Your task to perform on an android device: View the shopping cart on costco. Add "macbook" to the cart on costco Image 0: 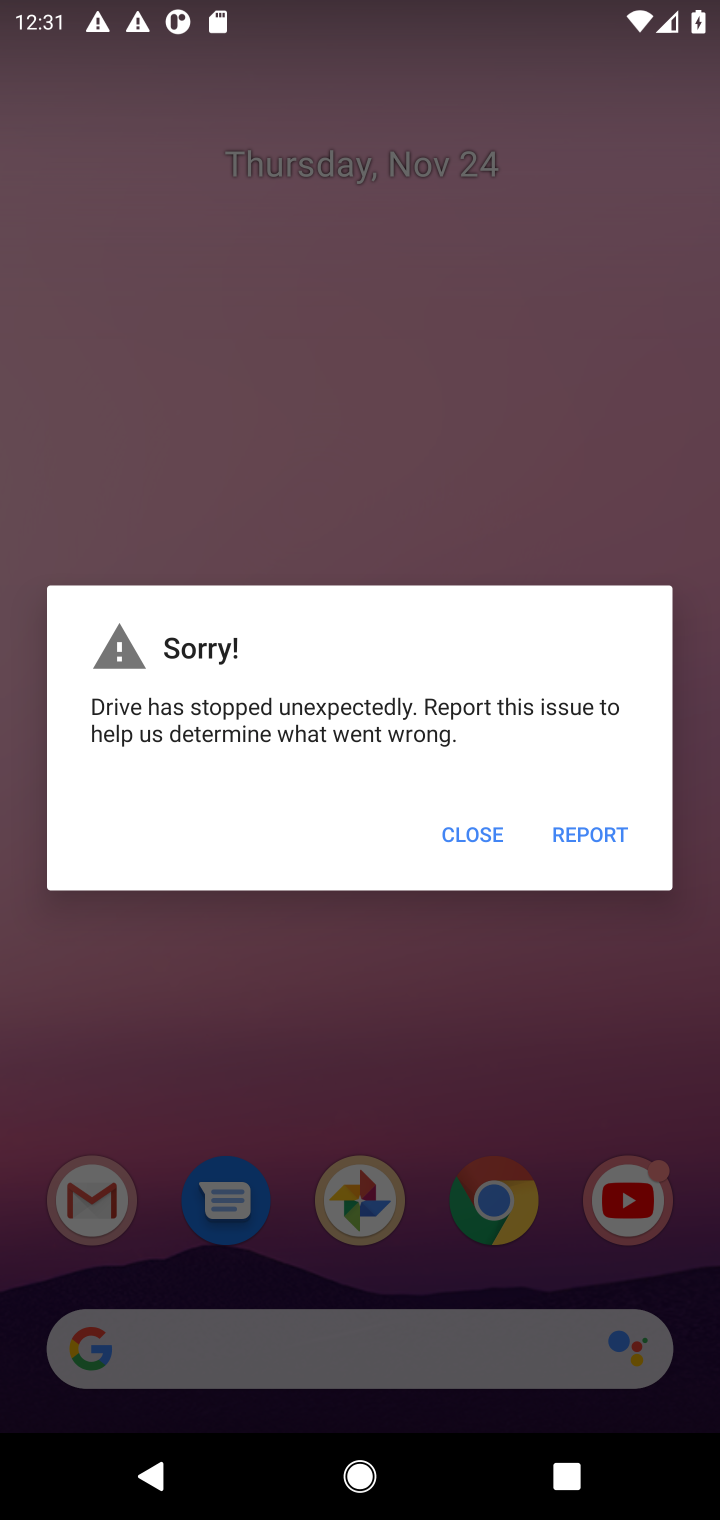
Step 0: press home button
Your task to perform on an android device: View the shopping cart on costco. Add "macbook" to the cart on costco Image 1: 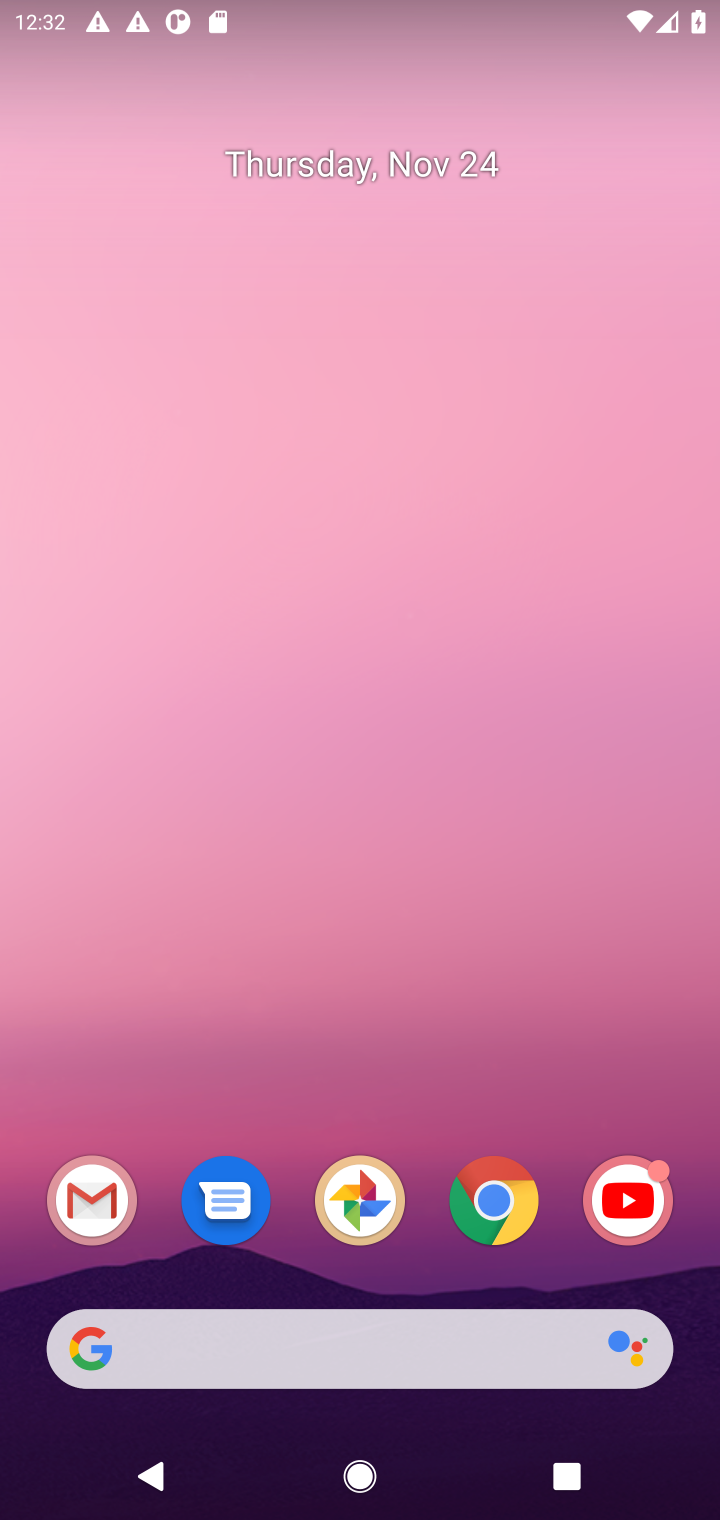
Step 1: click (420, 1337)
Your task to perform on an android device: View the shopping cart on costco. Add "macbook" to the cart on costco Image 2: 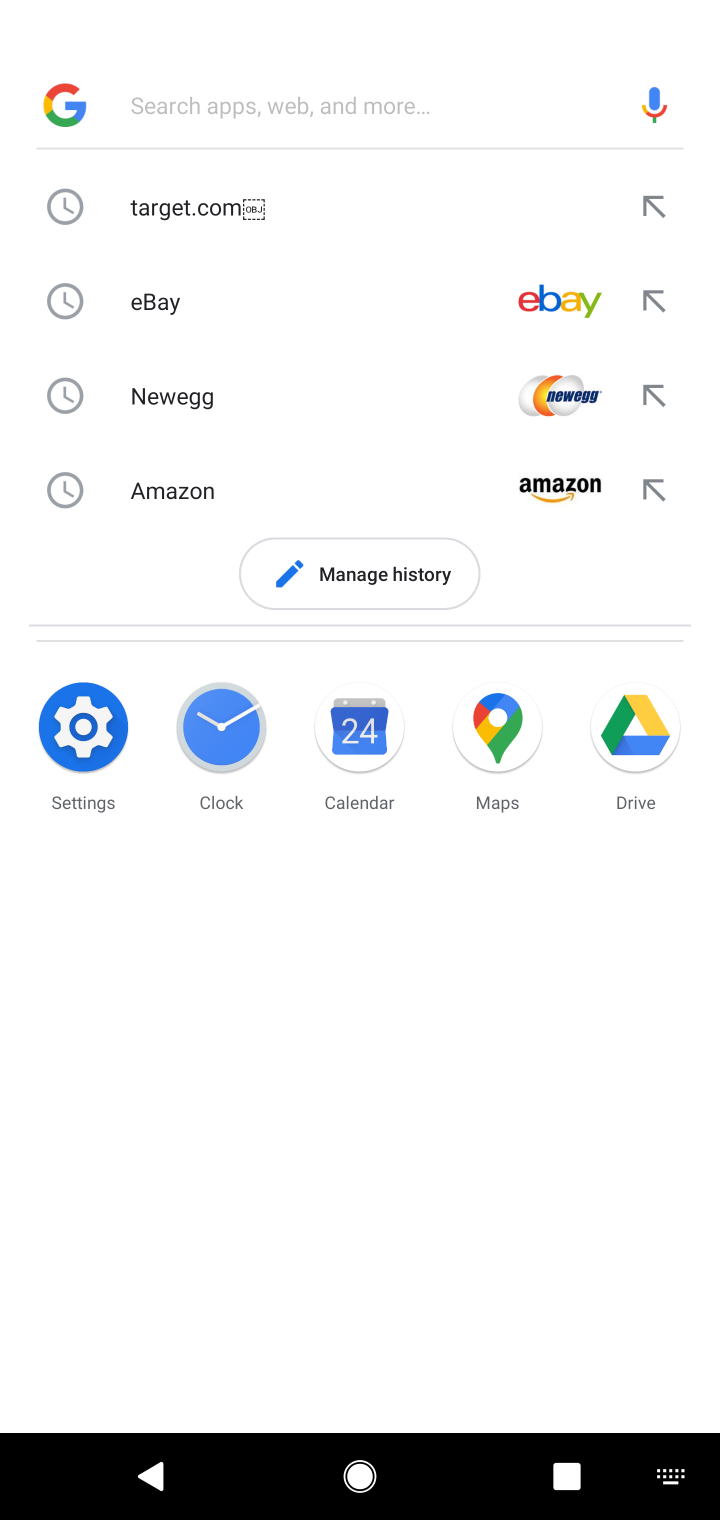
Step 2: type "costco"
Your task to perform on an android device: View the shopping cart on costco. Add "macbook" to the cart on costco Image 3: 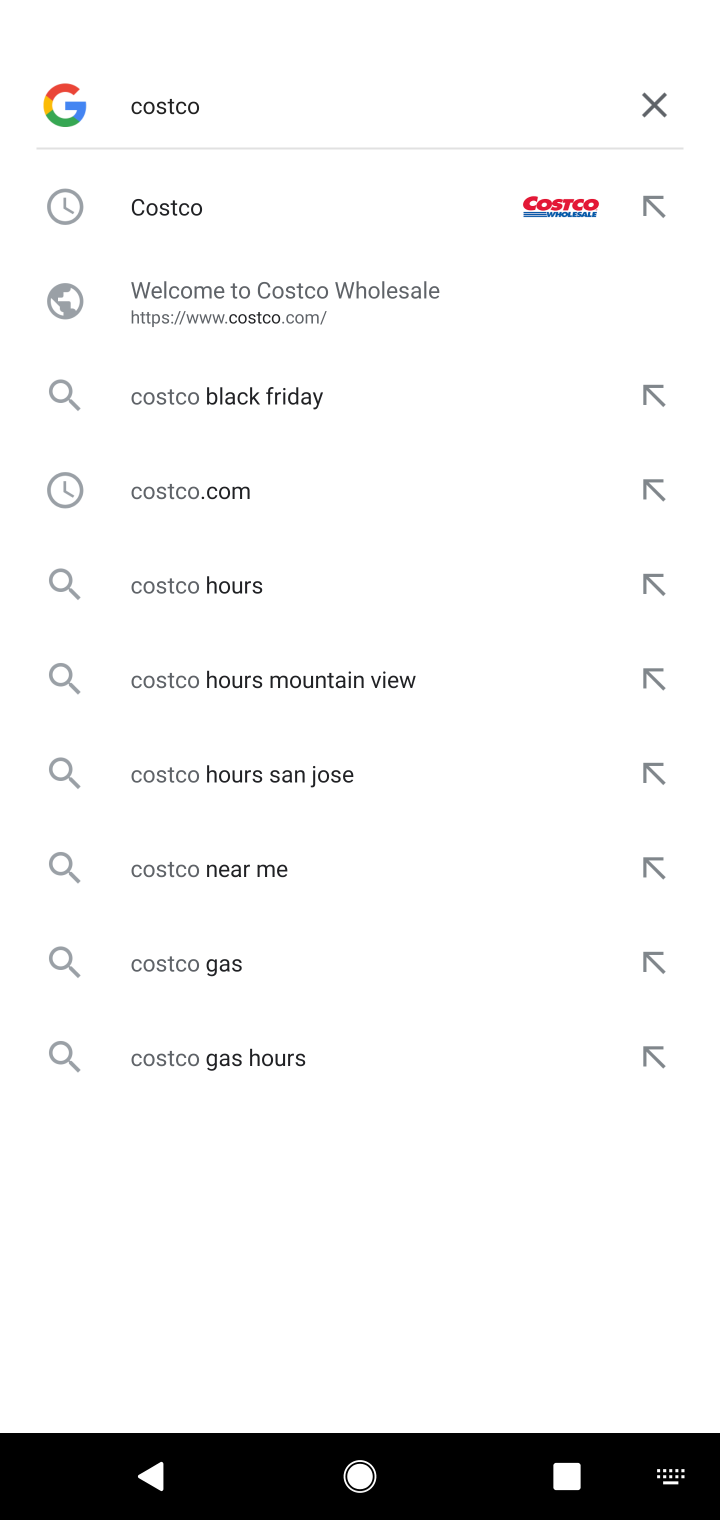
Step 3: click (226, 181)
Your task to perform on an android device: View the shopping cart on costco. Add "macbook" to the cart on costco Image 4: 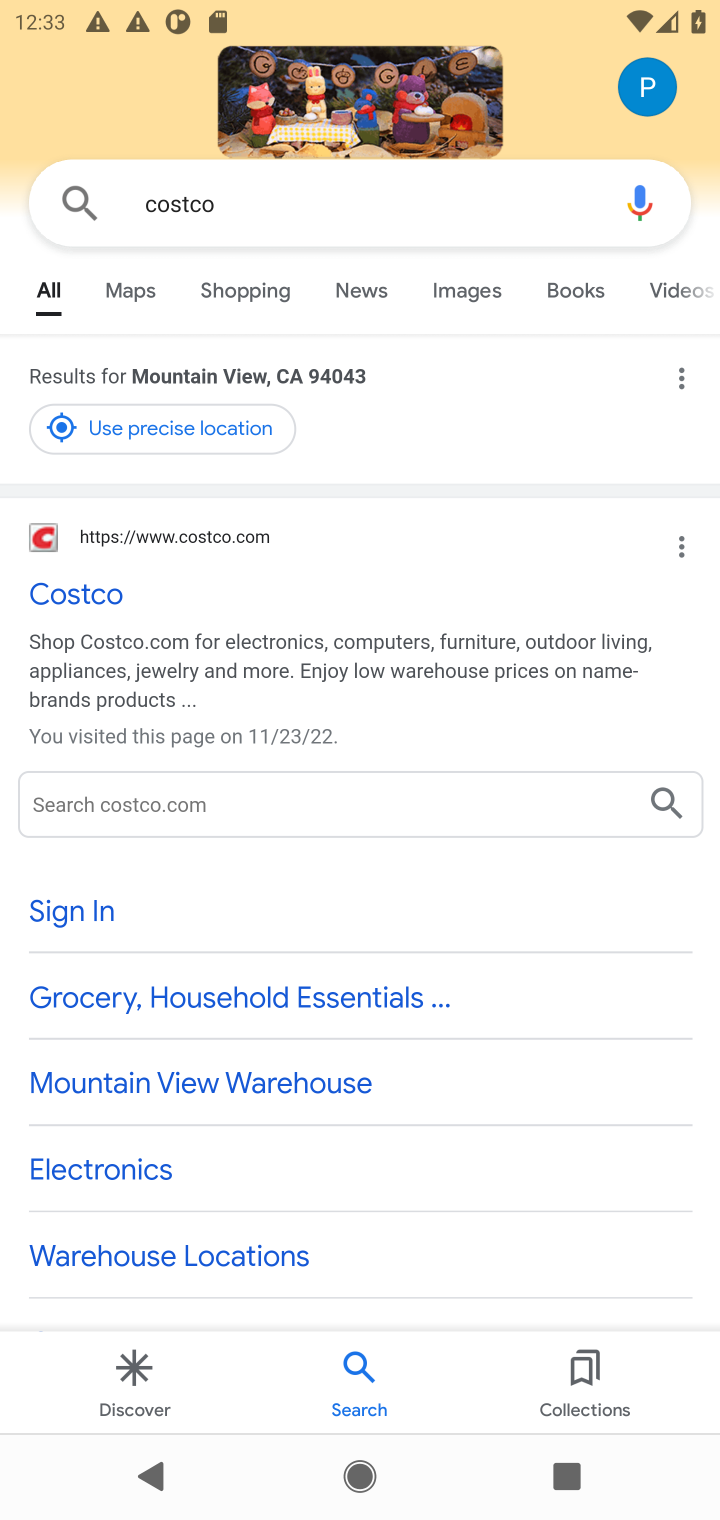
Step 4: click (77, 605)
Your task to perform on an android device: View the shopping cart on costco. Add "macbook" to the cart on costco Image 5: 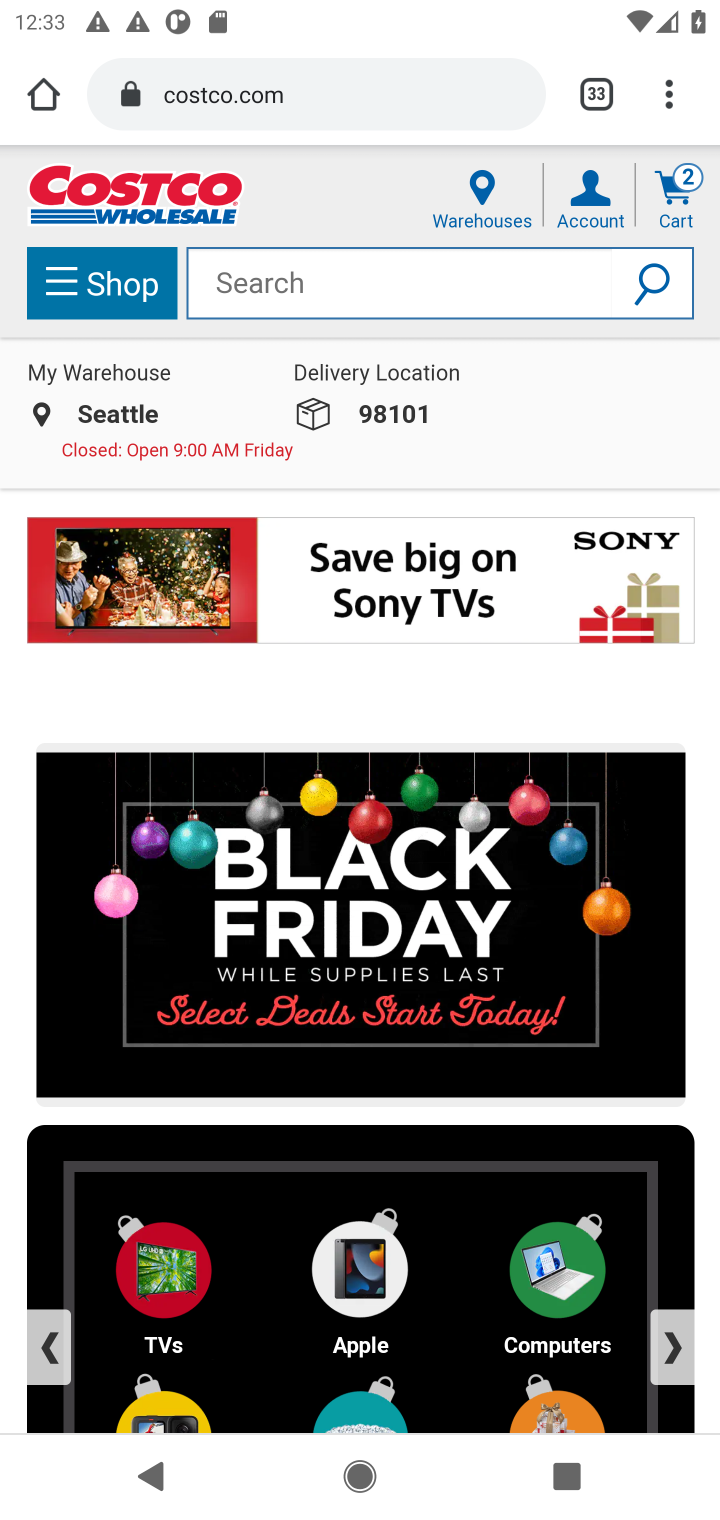
Step 5: click (222, 272)
Your task to perform on an android device: View the shopping cart on costco. Add "macbook" to the cart on costco Image 6: 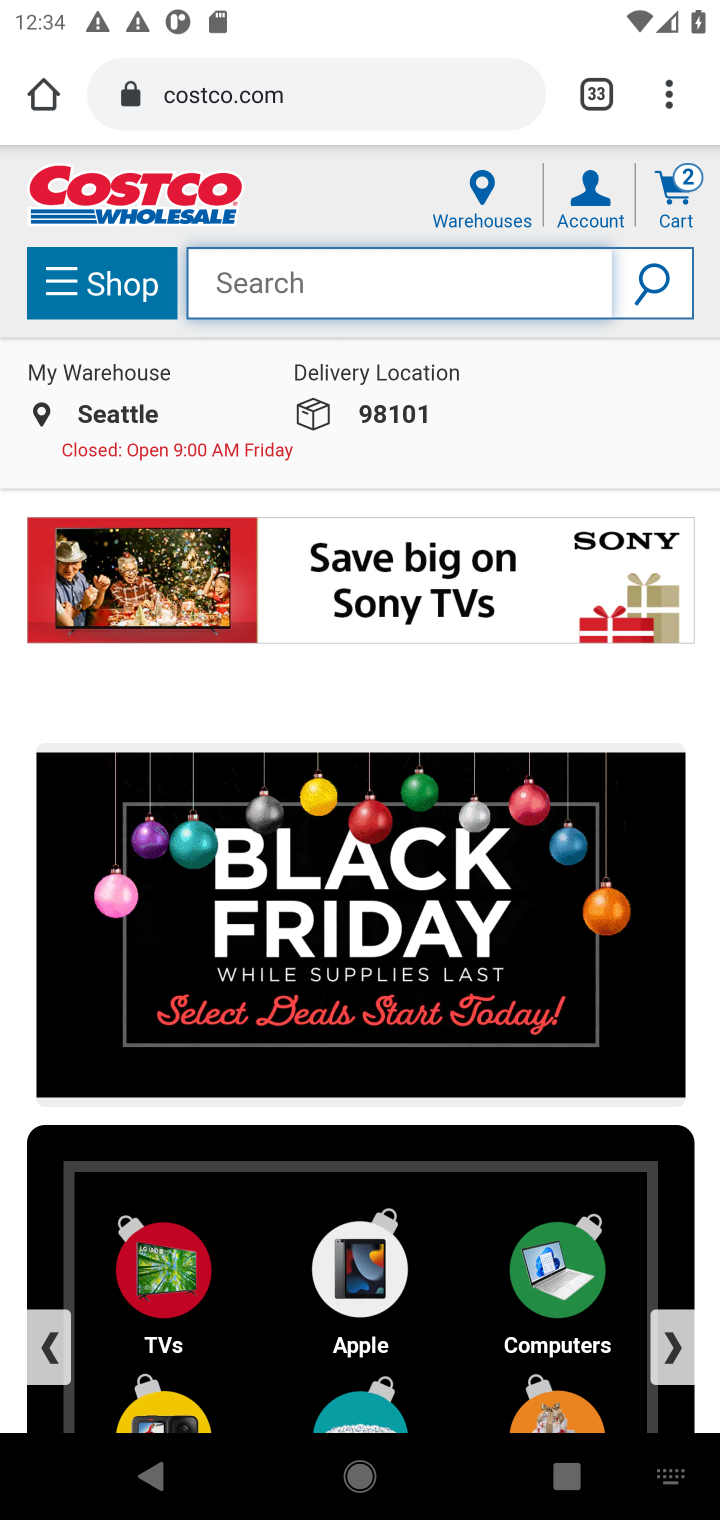
Step 6: task complete